Your task to perform on an android device: open app "Google News" Image 0: 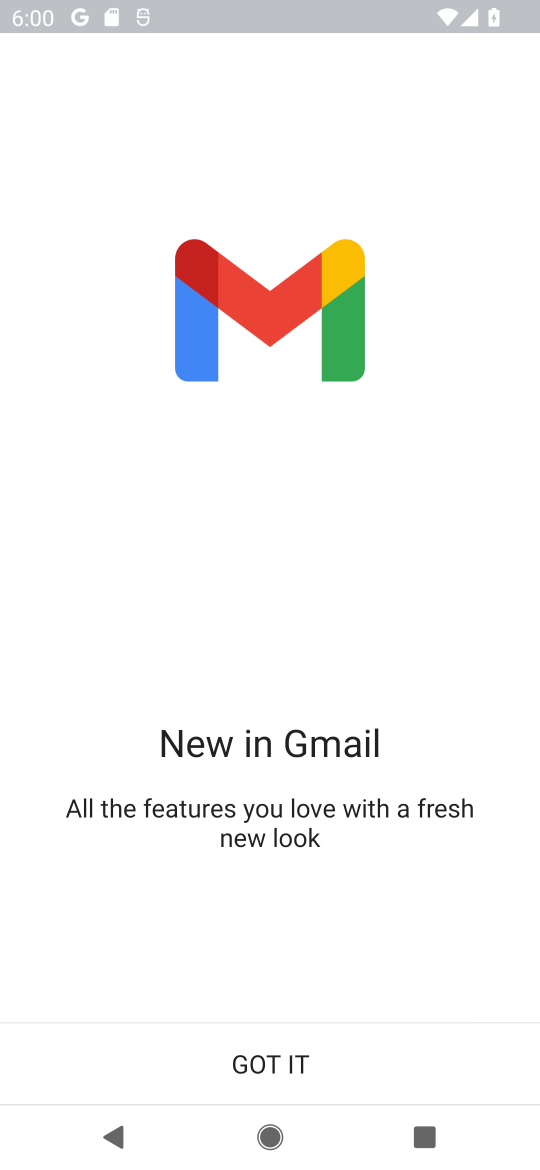
Step 0: press home button
Your task to perform on an android device: open app "Google News" Image 1: 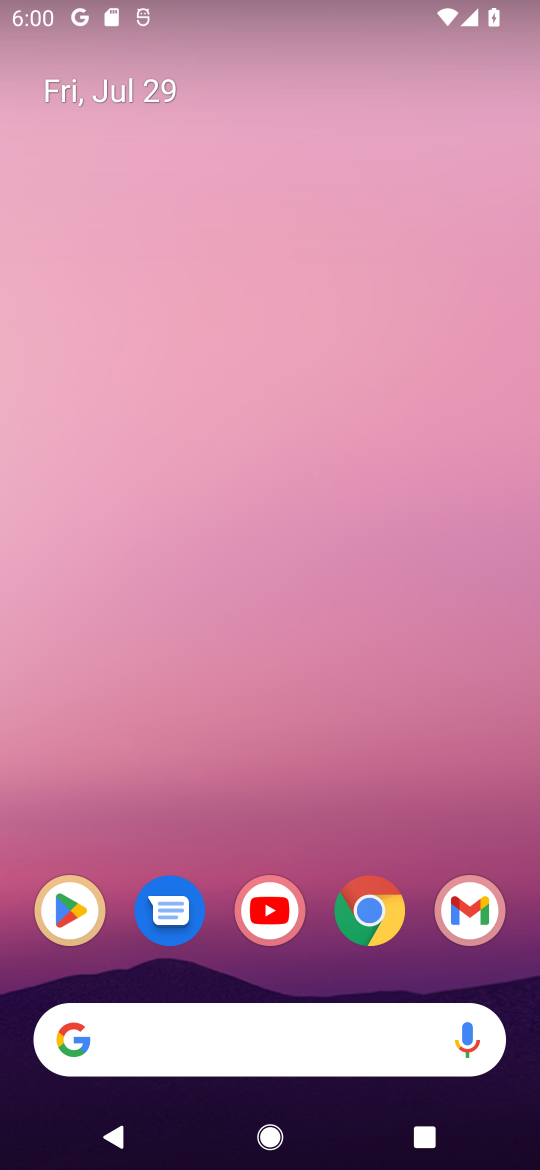
Step 1: click (59, 930)
Your task to perform on an android device: open app "Google News" Image 2: 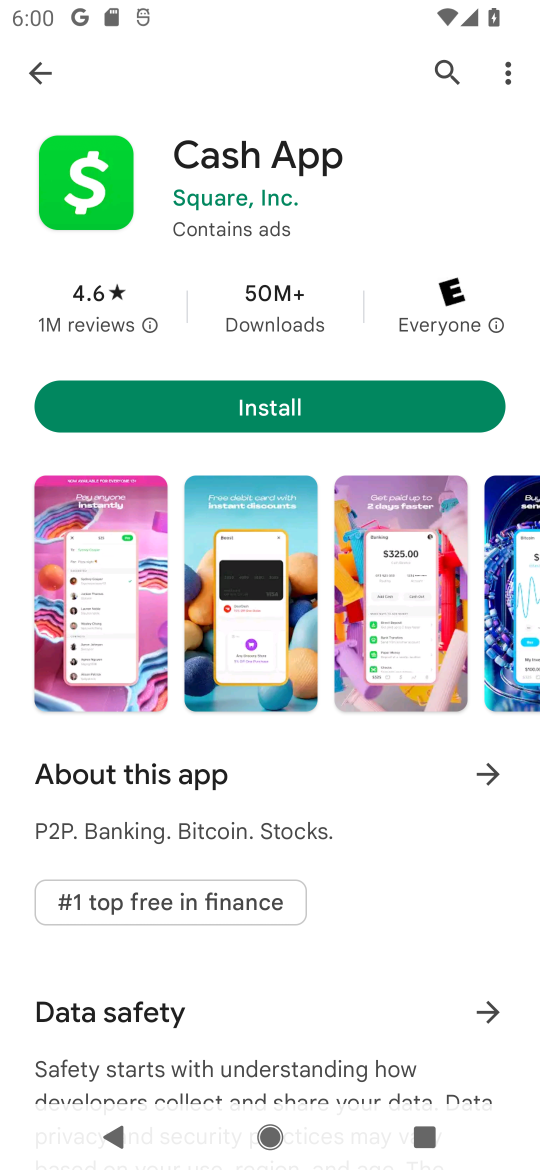
Step 2: click (440, 84)
Your task to perform on an android device: open app "Google News" Image 3: 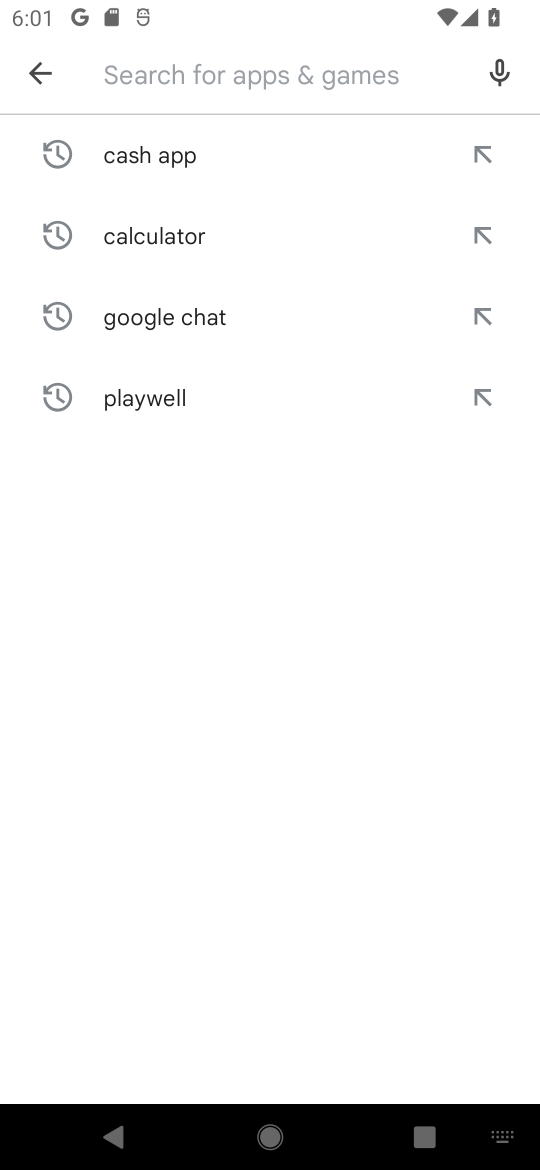
Step 3: type "google news"
Your task to perform on an android device: open app "Google News" Image 4: 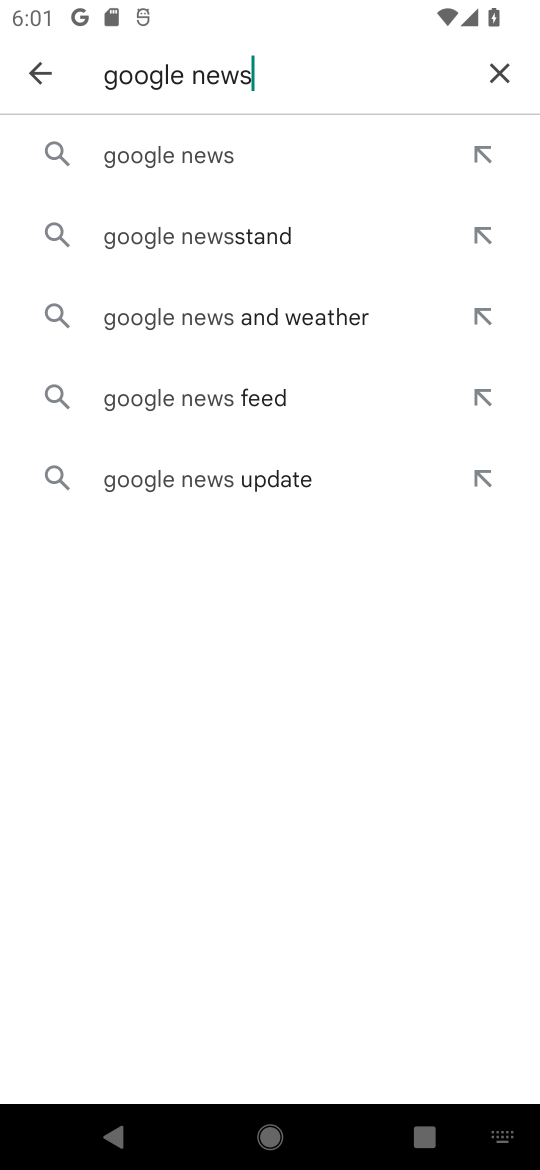
Step 4: click (188, 163)
Your task to perform on an android device: open app "Google News" Image 5: 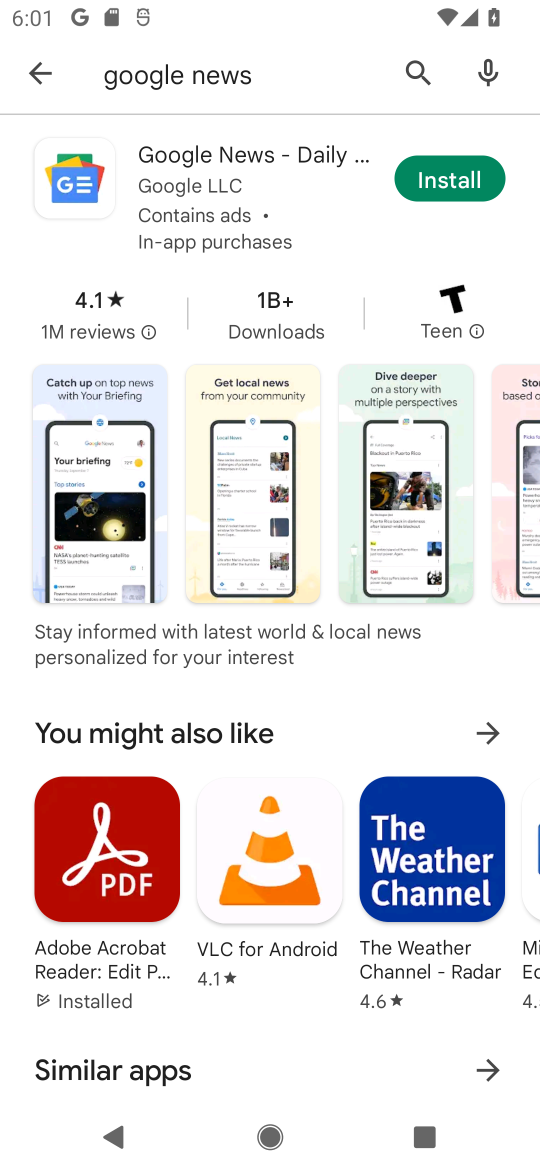
Step 5: click (249, 139)
Your task to perform on an android device: open app "Google News" Image 6: 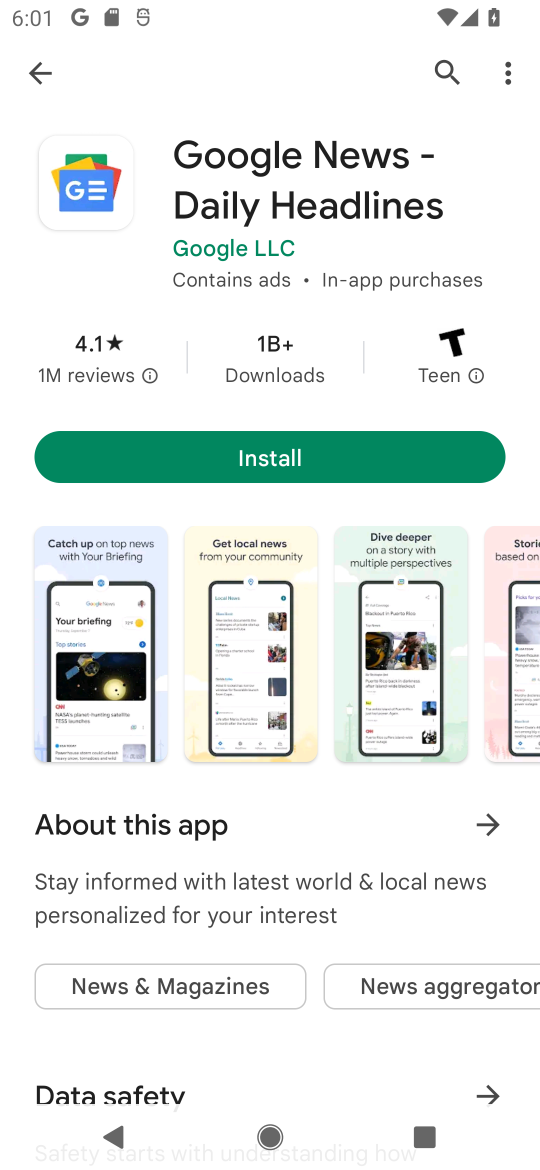
Step 6: task complete